Your task to perform on an android device: open app "Life360: Find Family & Friends" (install if not already installed), go to login, and select forgot password Image 0: 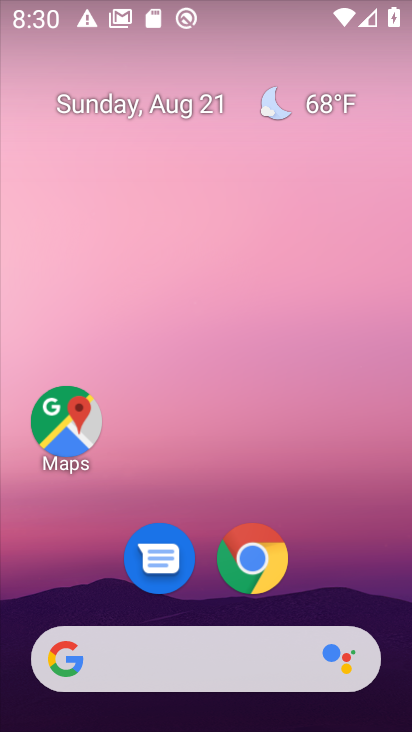
Step 0: drag from (225, 633) to (187, 173)
Your task to perform on an android device: open app "Life360: Find Family & Friends" (install if not already installed), go to login, and select forgot password Image 1: 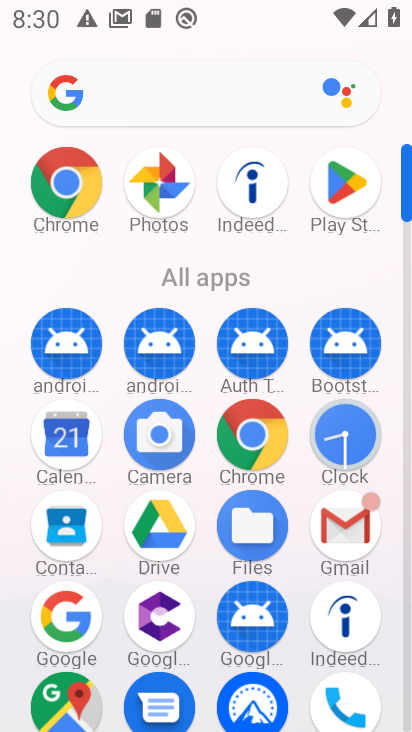
Step 1: click (326, 191)
Your task to perform on an android device: open app "Life360: Find Family & Friends" (install if not already installed), go to login, and select forgot password Image 2: 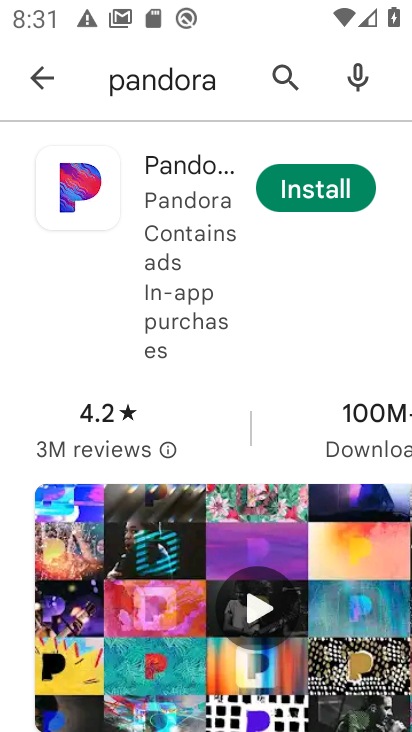
Step 2: click (281, 77)
Your task to perform on an android device: open app "Life360: Find Family & Friends" (install if not already installed), go to login, and select forgot password Image 3: 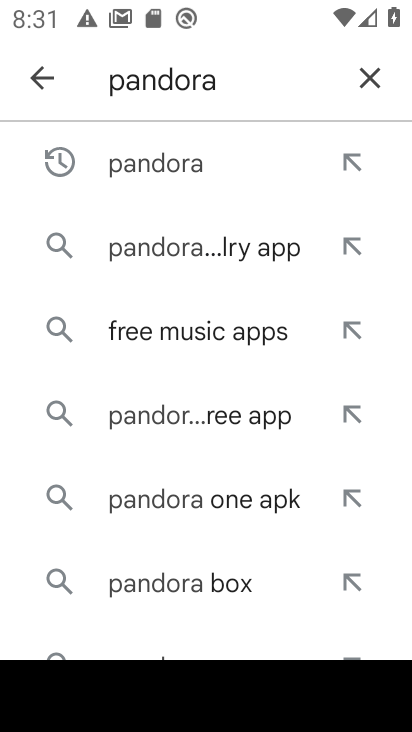
Step 3: click (374, 86)
Your task to perform on an android device: open app "Life360: Find Family & Friends" (install if not already installed), go to login, and select forgot password Image 4: 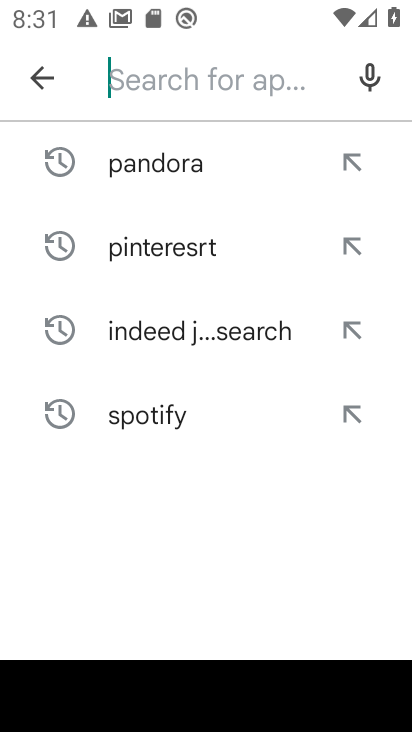
Step 4: type "Life360: Find Family & Friends"
Your task to perform on an android device: open app "Life360: Find Family & Friends" (install if not already installed), go to login, and select forgot password Image 5: 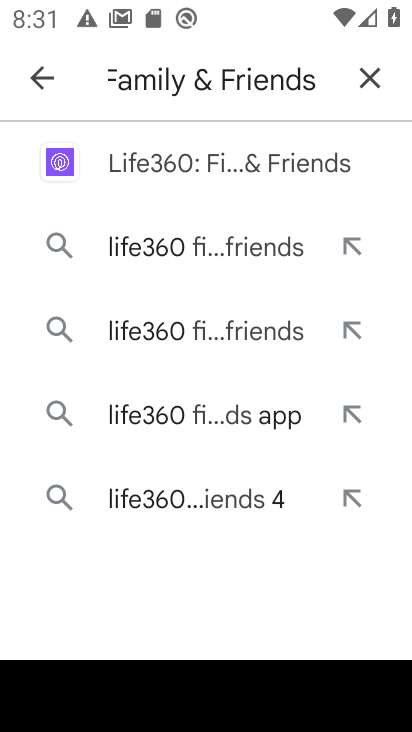
Step 5: click (302, 171)
Your task to perform on an android device: open app "Life360: Find Family & Friends" (install if not already installed), go to login, and select forgot password Image 6: 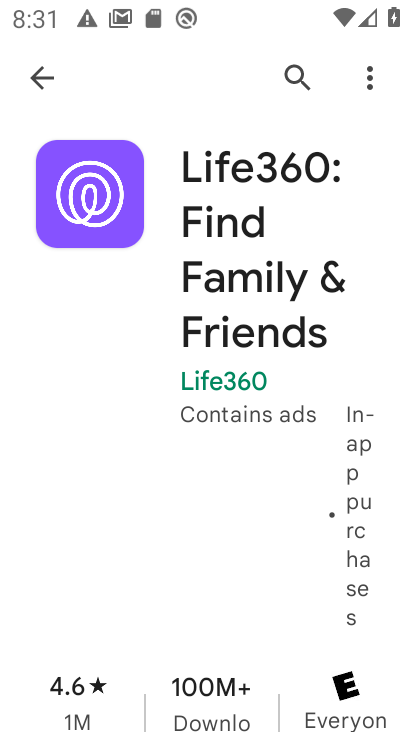
Step 6: drag from (245, 521) to (212, 206)
Your task to perform on an android device: open app "Life360: Find Family & Friends" (install if not already installed), go to login, and select forgot password Image 7: 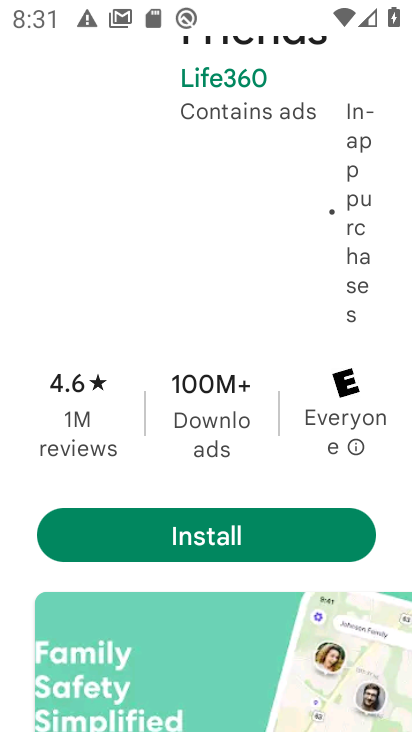
Step 7: click (158, 534)
Your task to perform on an android device: open app "Life360: Find Family & Friends" (install if not already installed), go to login, and select forgot password Image 8: 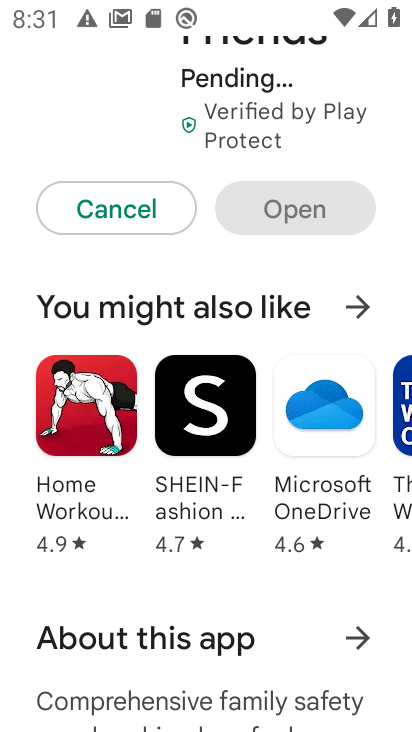
Step 8: drag from (263, 256) to (280, 607)
Your task to perform on an android device: open app "Life360: Find Family & Friends" (install if not already installed), go to login, and select forgot password Image 9: 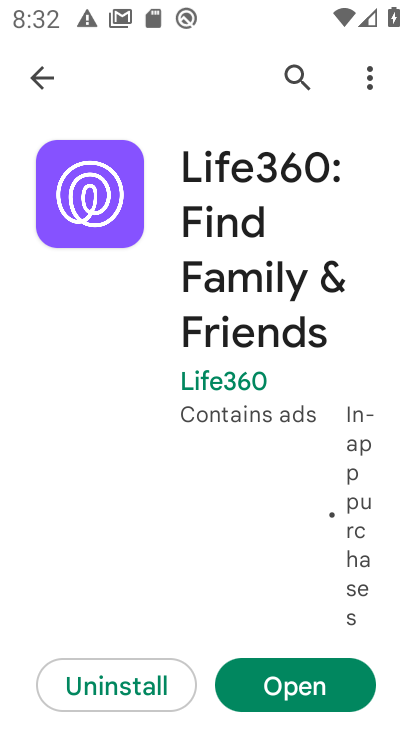
Step 9: click (287, 681)
Your task to perform on an android device: open app "Life360: Find Family & Friends" (install if not already installed), go to login, and select forgot password Image 10: 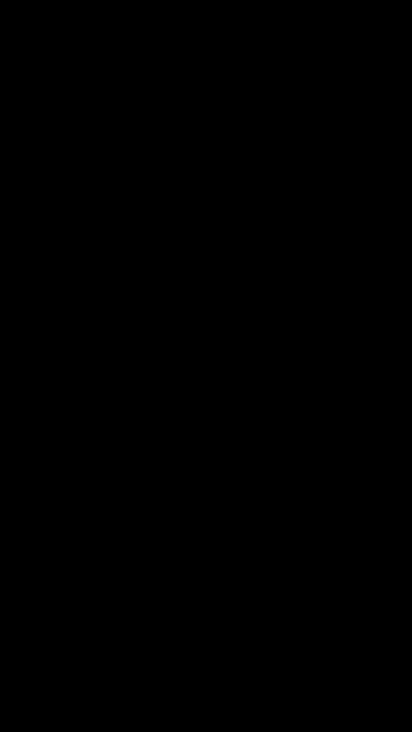
Step 10: task complete